Your task to perform on an android device: turn off airplane mode Image 0: 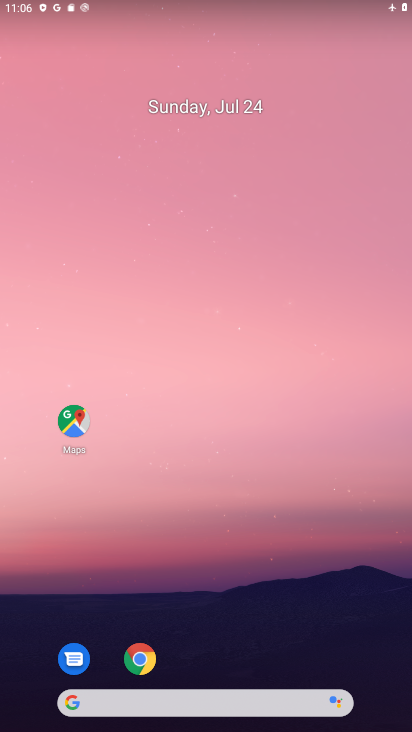
Step 0: drag from (276, 676) to (202, 53)
Your task to perform on an android device: turn off airplane mode Image 1: 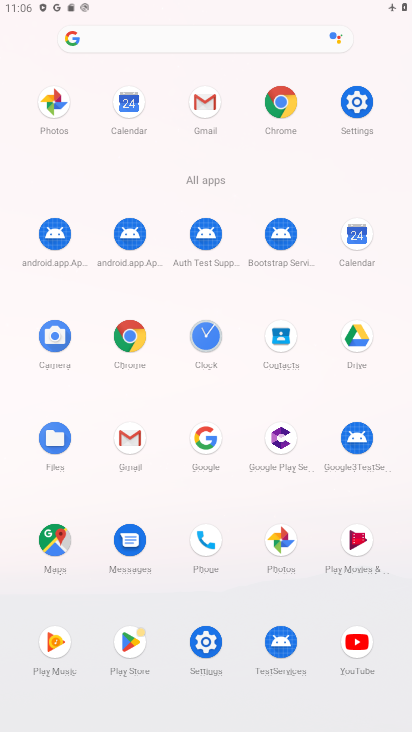
Step 1: click (360, 103)
Your task to perform on an android device: turn off airplane mode Image 2: 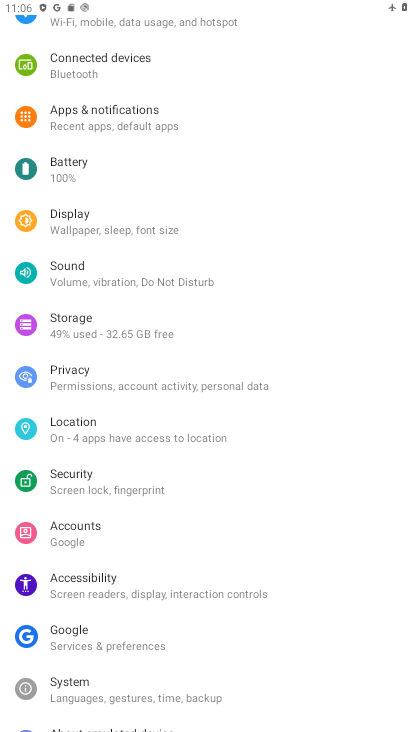
Step 2: drag from (161, 157) to (177, 581)
Your task to perform on an android device: turn off airplane mode Image 3: 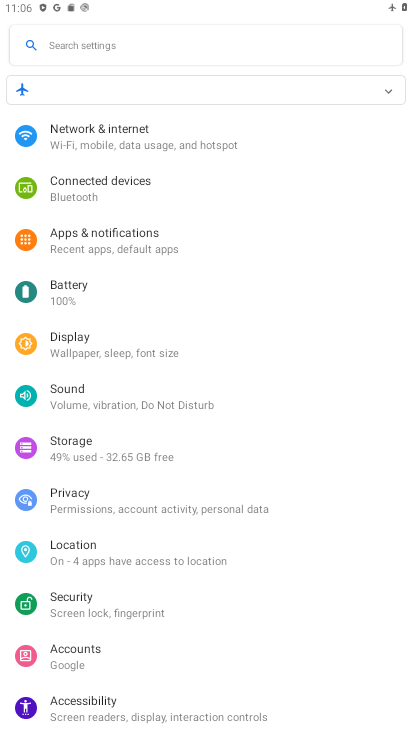
Step 3: click (176, 132)
Your task to perform on an android device: turn off airplane mode Image 4: 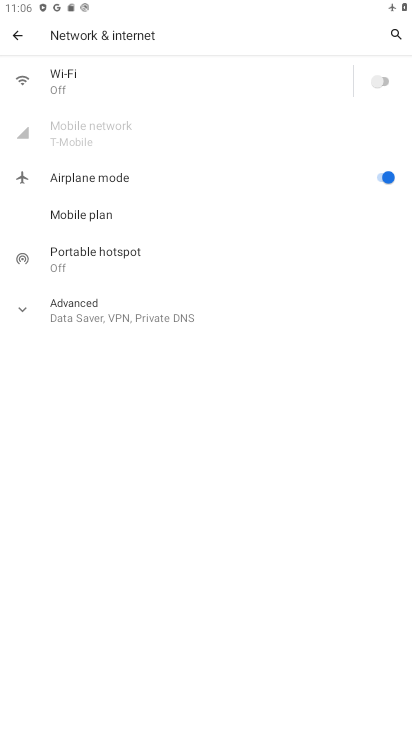
Step 4: click (392, 180)
Your task to perform on an android device: turn off airplane mode Image 5: 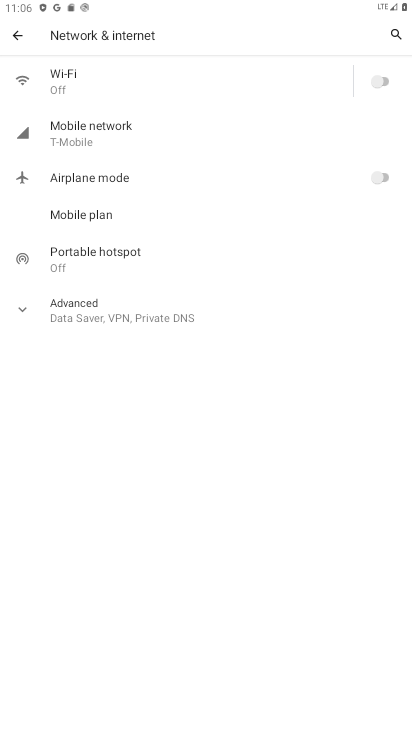
Step 5: task complete